Your task to perform on an android device: Open calendar and show me the second week of next month Image 0: 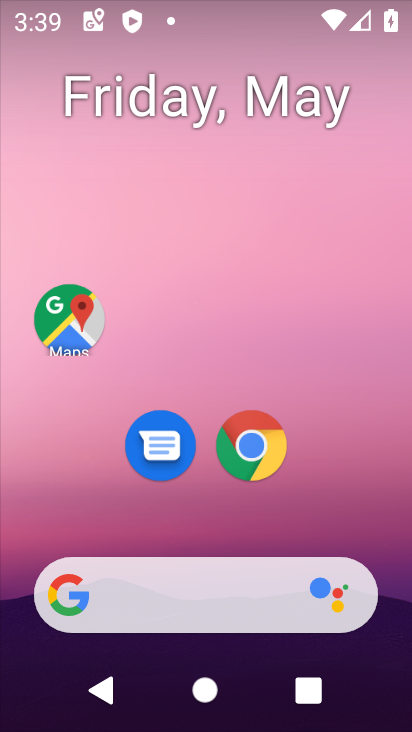
Step 0: drag from (191, 505) to (248, 4)
Your task to perform on an android device: Open calendar and show me the second week of next month Image 1: 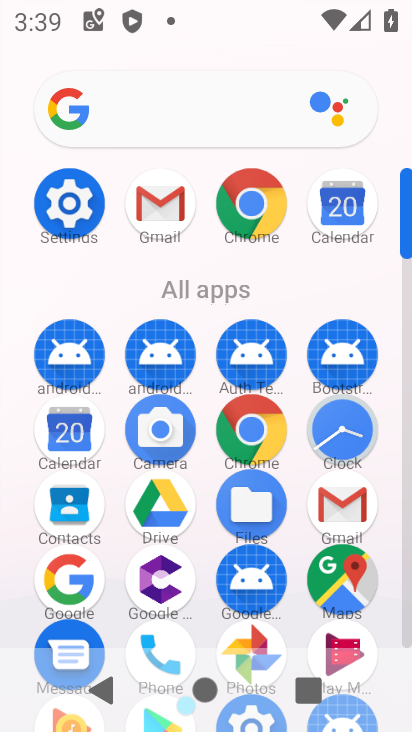
Step 1: click (87, 447)
Your task to perform on an android device: Open calendar and show me the second week of next month Image 2: 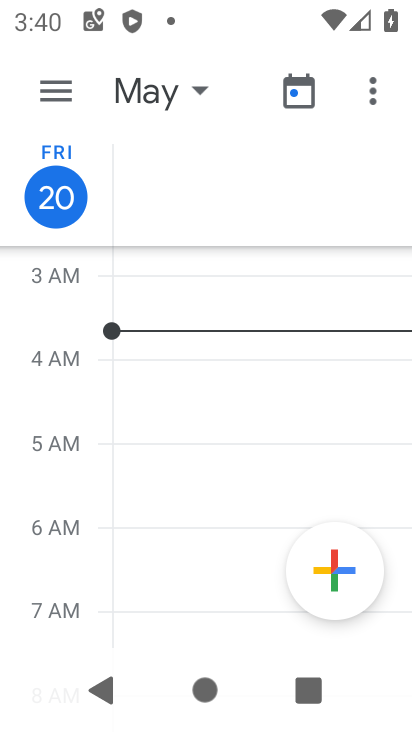
Step 2: click (61, 89)
Your task to perform on an android device: Open calendar and show me the second week of next month Image 3: 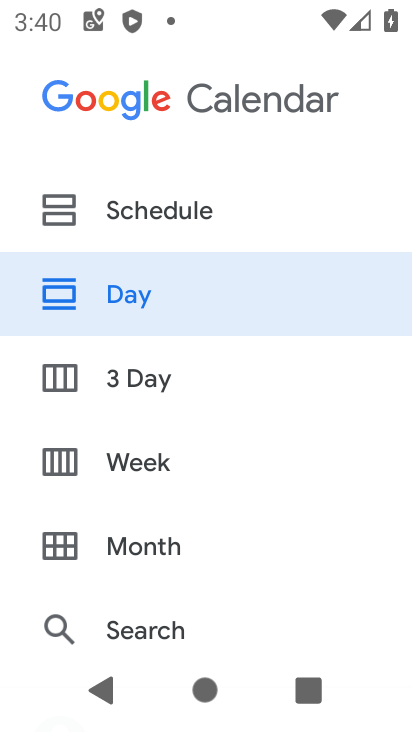
Step 3: click (145, 481)
Your task to perform on an android device: Open calendar and show me the second week of next month Image 4: 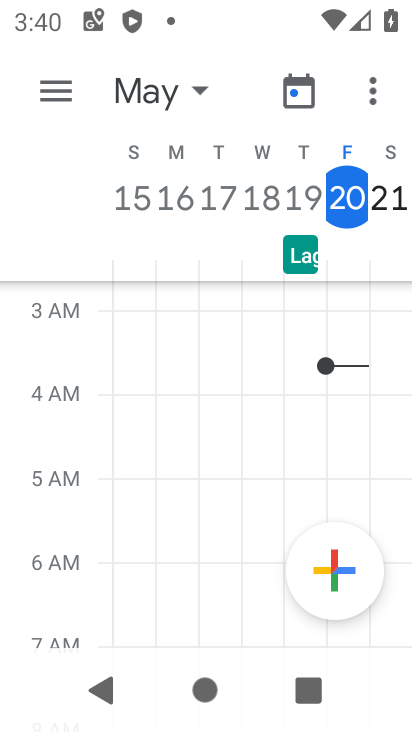
Step 4: task complete